Your task to perform on an android device: turn on airplane mode Image 0: 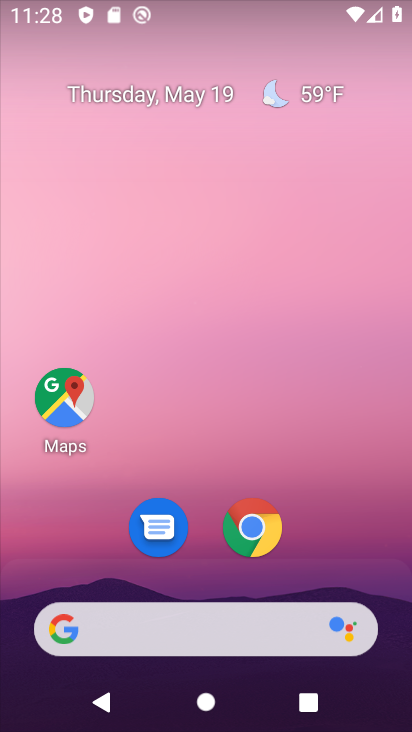
Step 0: drag from (376, 528) to (336, 195)
Your task to perform on an android device: turn on airplane mode Image 1: 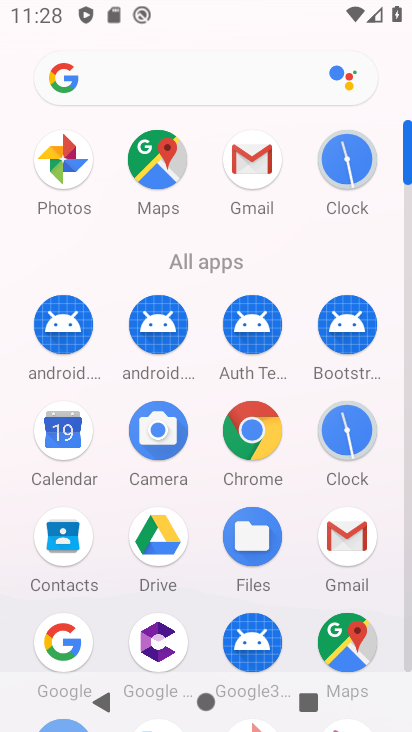
Step 1: click (404, 634)
Your task to perform on an android device: turn on airplane mode Image 2: 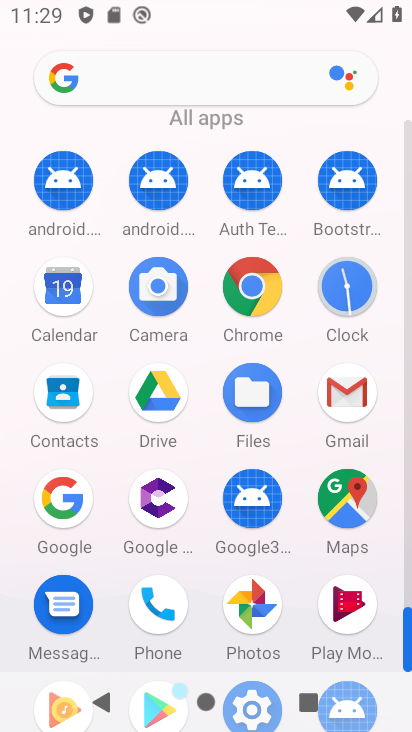
Step 2: drag from (393, 633) to (407, 397)
Your task to perform on an android device: turn on airplane mode Image 3: 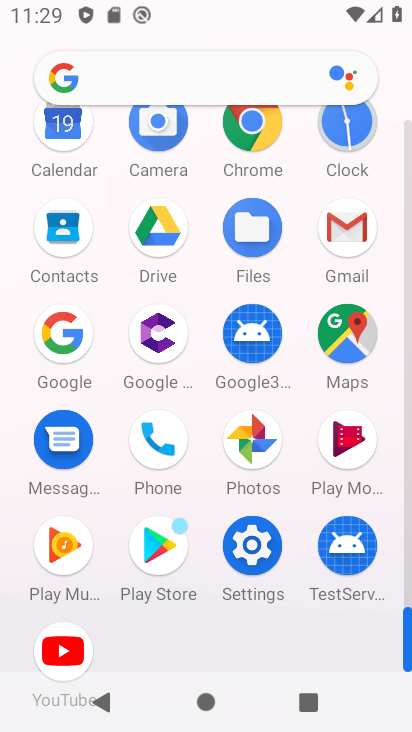
Step 3: click (251, 548)
Your task to perform on an android device: turn on airplane mode Image 4: 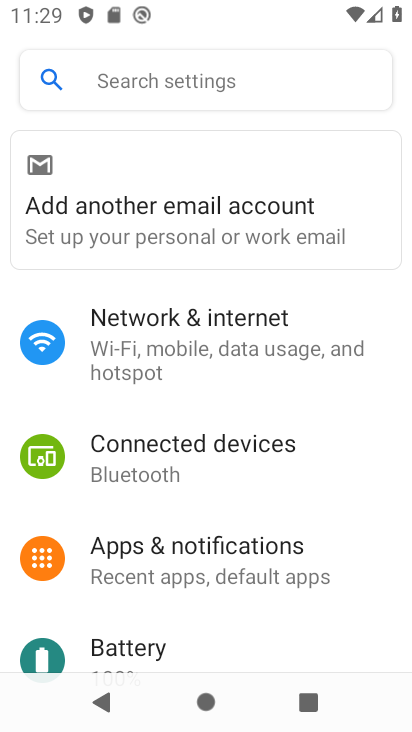
Step 4: click (266, 362)
Your task to perform on an android device: turn on airplane mode Image 5: 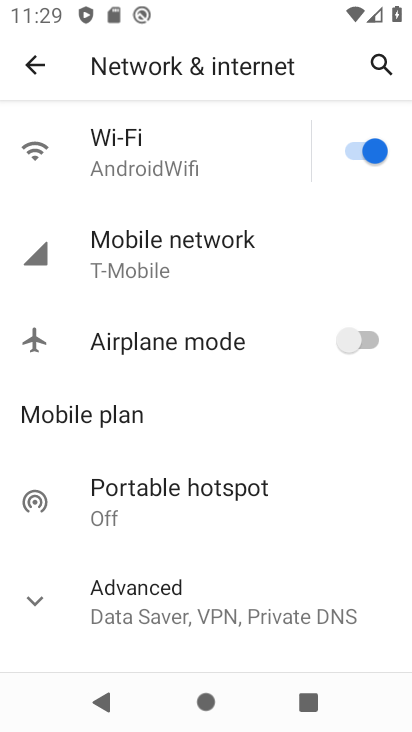
Step 5: click (340, 344)
Your task to perform on an android device: turn on airplane mode Image 6: 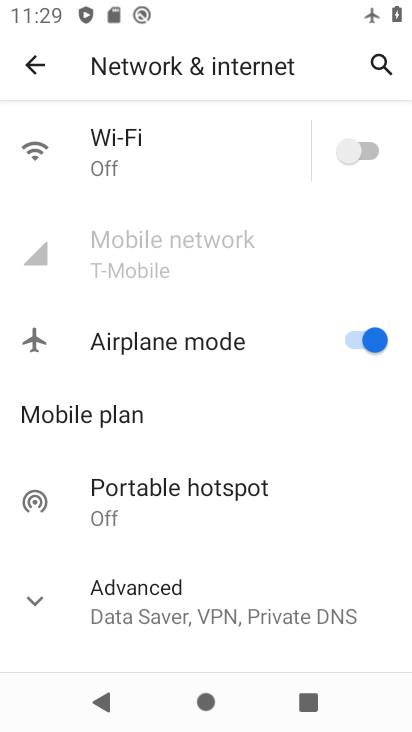
Step 6: task complete